Your task to perform on an android device: Add "logitech g pro" to the cart on walmart.com, then select checkout. Image 0: 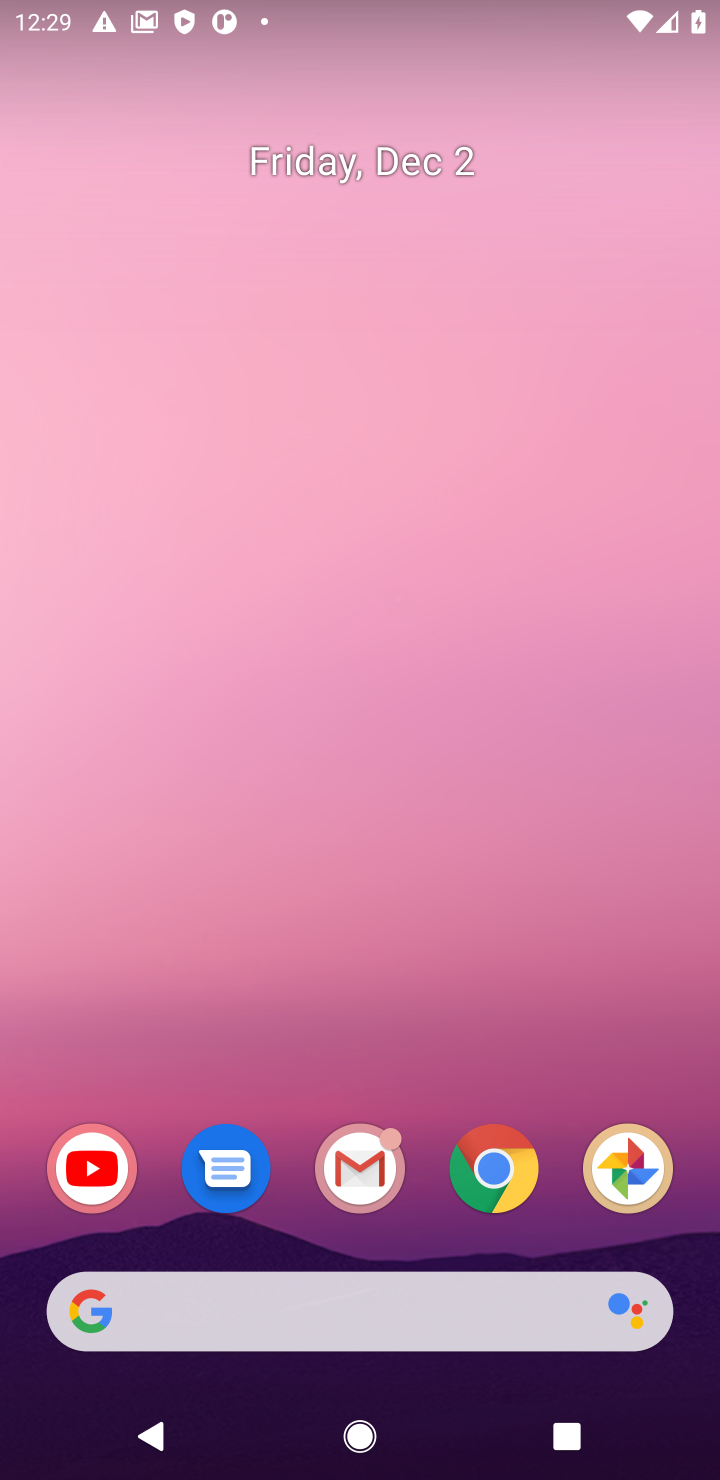
Step 0: click (506, 1173)
Your task to perform on an android device: Add "logitech g pro" to the cart on walmart.com, then select checkout. Image 1: 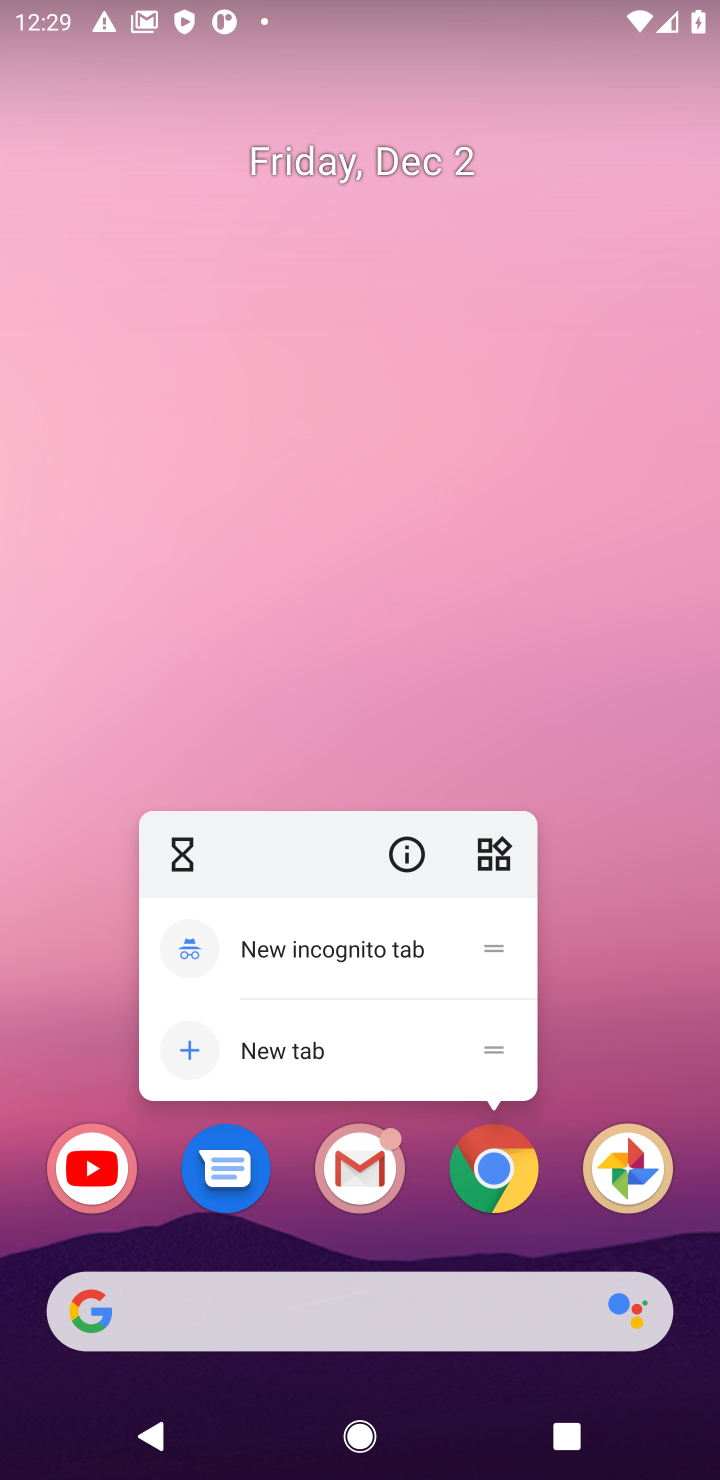
Step 1: click (506, 1173)
Your task to perform on an android device: Add "logitech g pro" to the cart on walmart.com, then select checkout. Image 2: 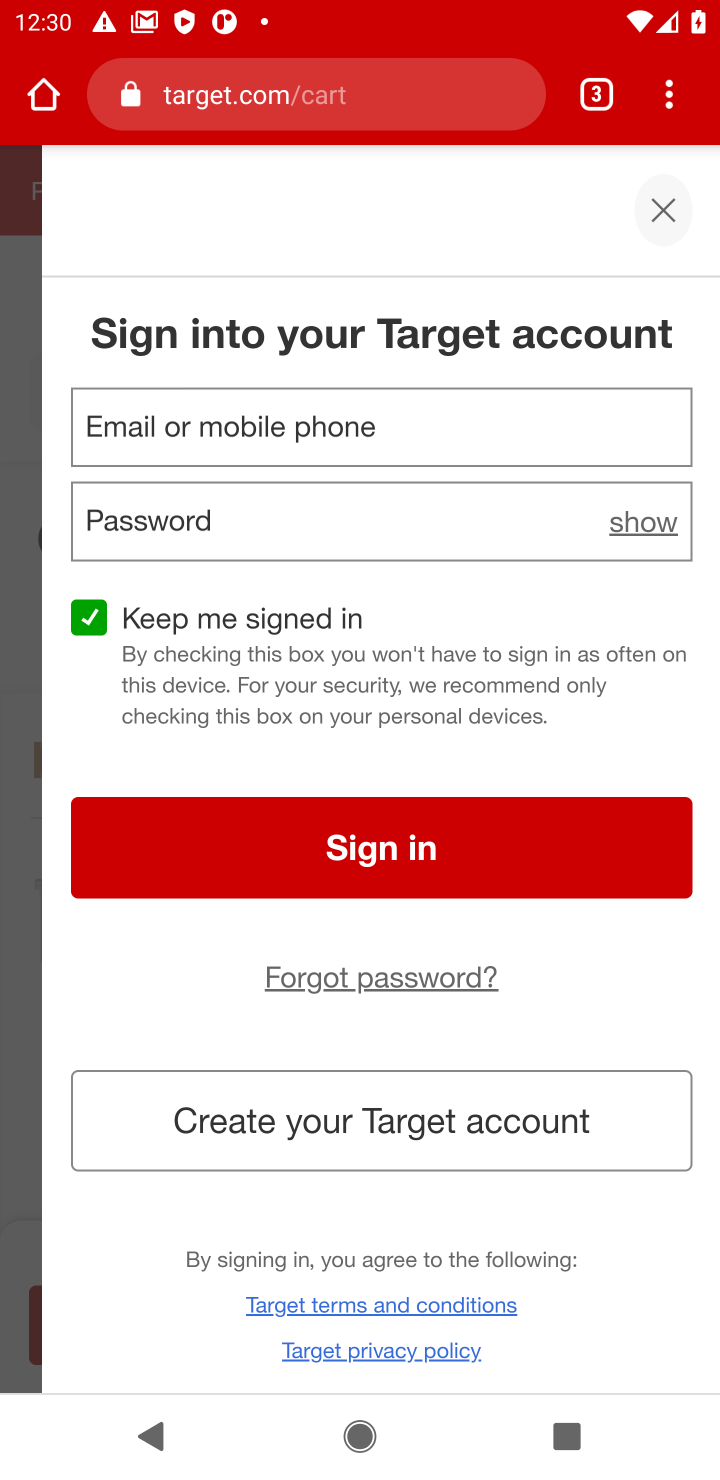
Step 2: click (296, 101)
Your task to perform on an android device: Add "logitech g pro" to the cart on walmart.com, then select checkout. Image 3: 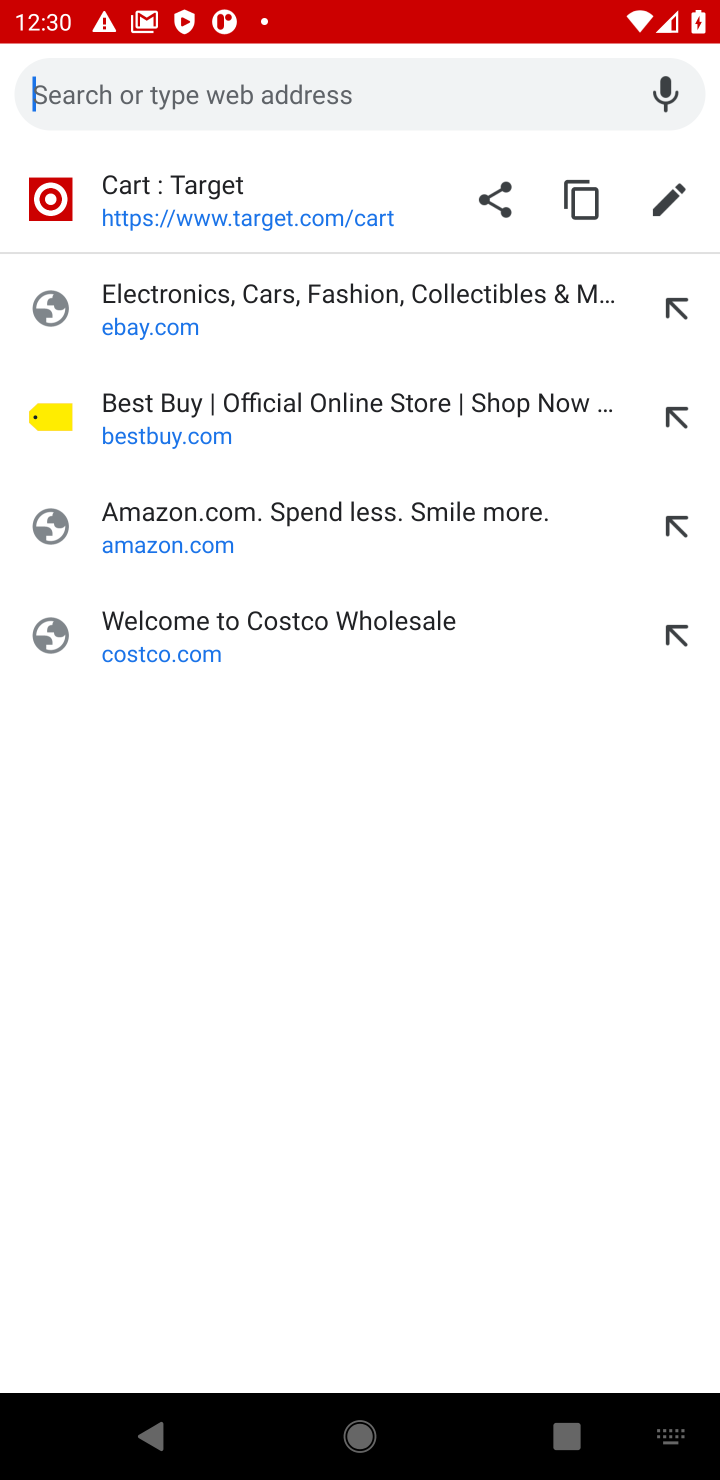
Step 3: type "walmart.com"
Your task to perform on an android device: Add "logitech g pro" to the cart on walmart.com, then select checkout. Image 4: 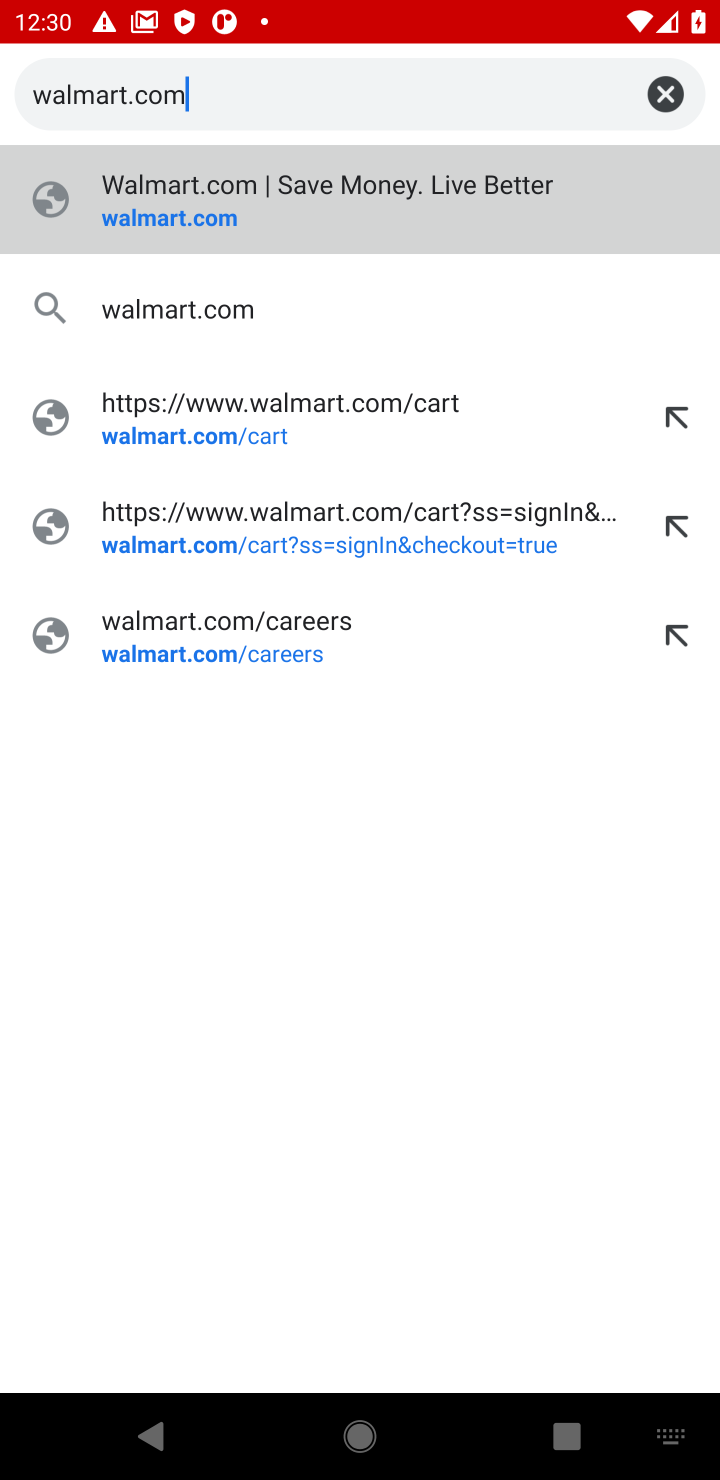
Step 4: click (132, 208)
Your task to perform on an android device: Add "logitech g pro" to the cart on walmart.com, then select checkout. Image 5: 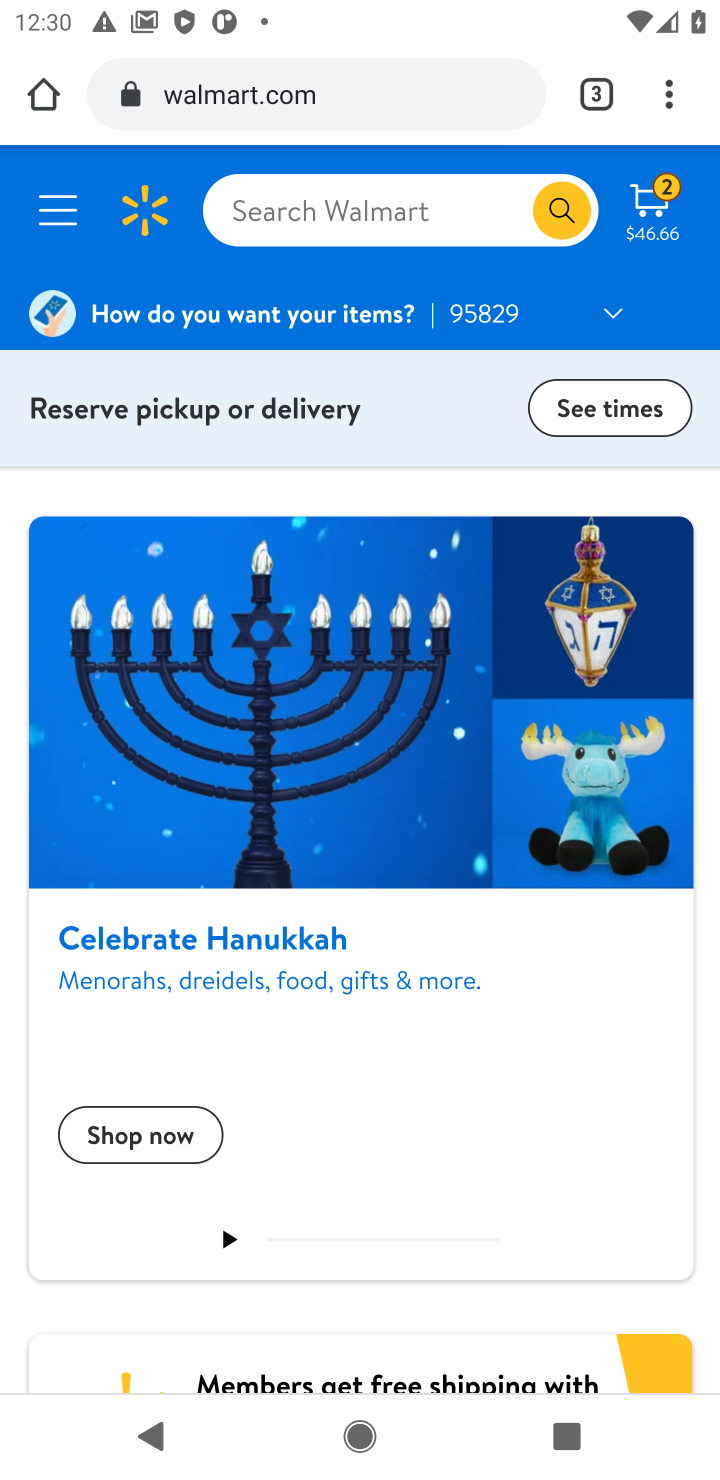
Step 5: click (284, 198)
Your task to perform on an android device: Add "logitech g pro" to the cart on walmart.com, then select checkout. Image 6: 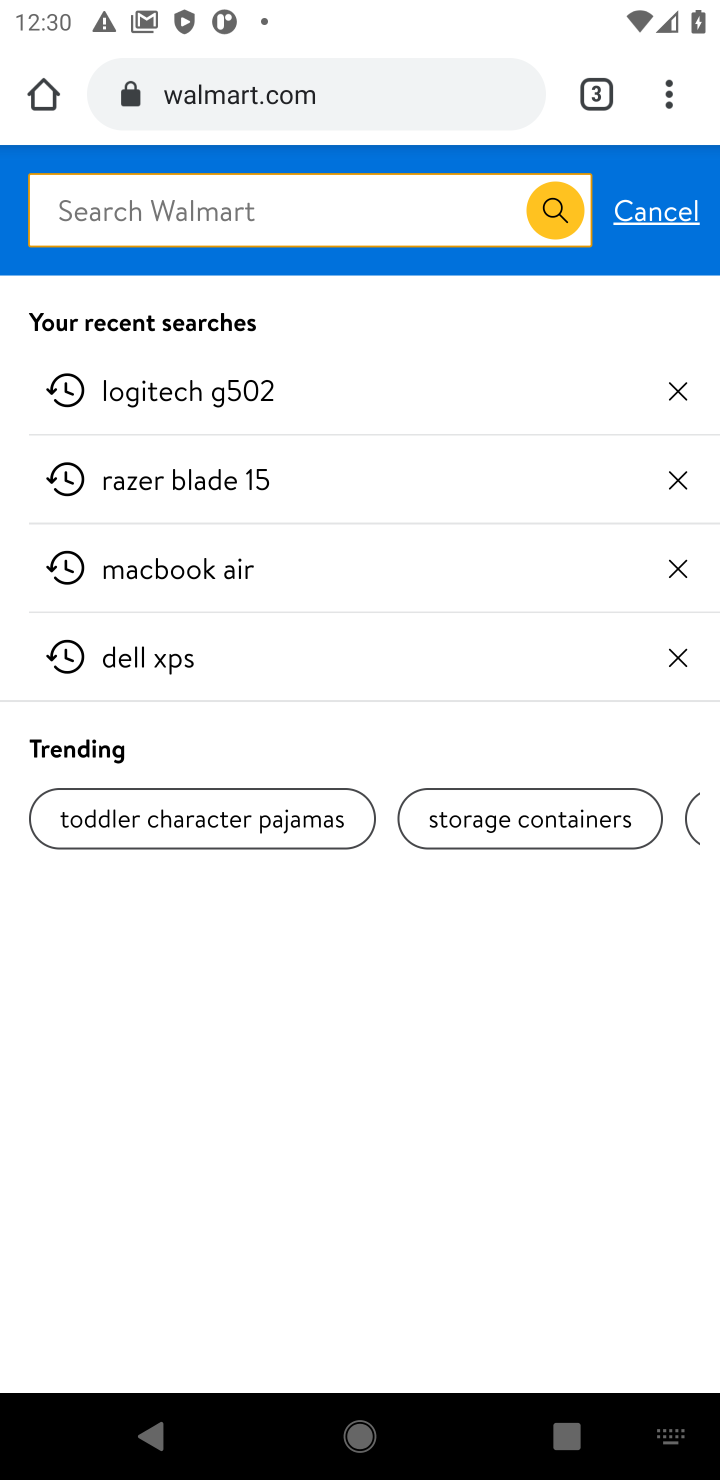
Step 6: type "logitech g pro"
Your task to perform on an android device: Add "logitech g pro" to the cart on walmart.com, then select checkout. Image 7: 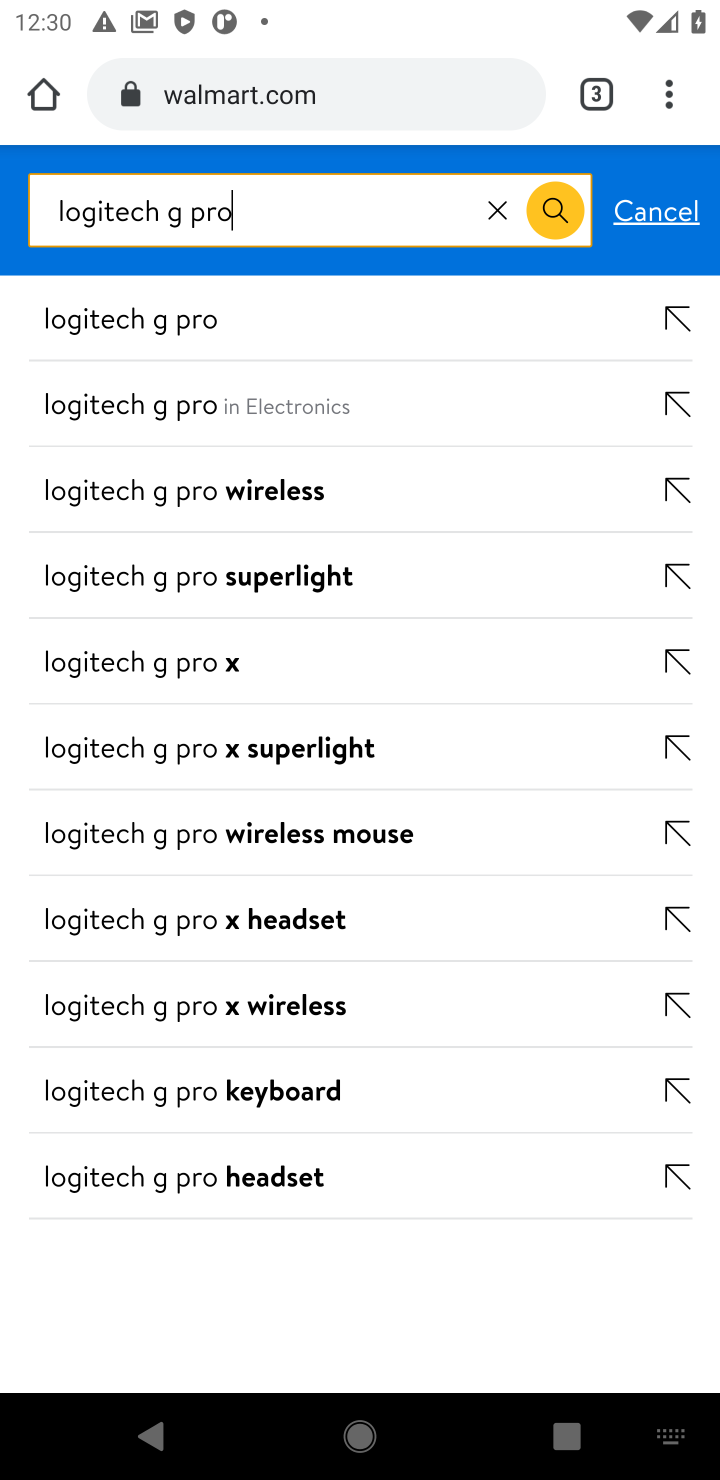
Step 7: click (164, 337)
Your task to perform on an android device: Add "logitech g pro" to the cart on walmart.com, then select checkout. Image 8: 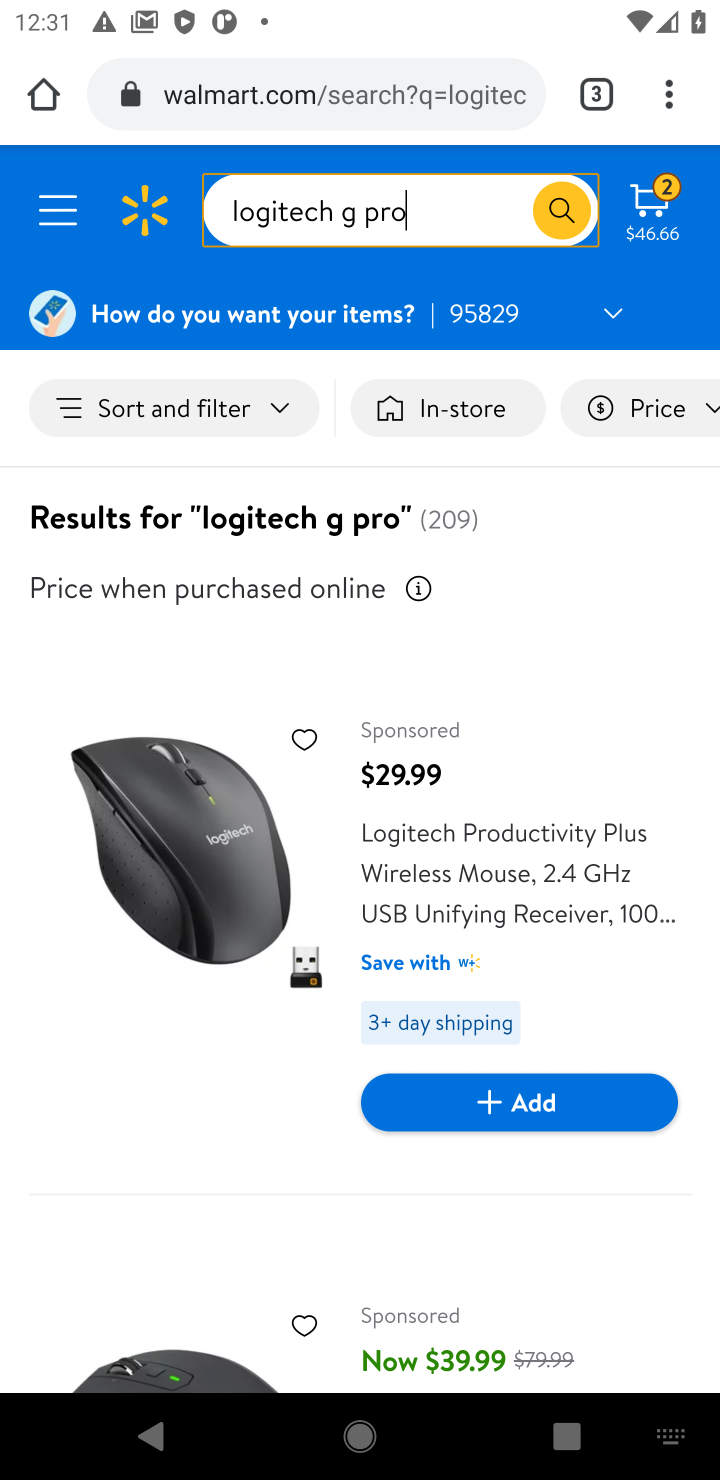
Step 8: drag from (196, 999) to (212, 515)
Your task to perform on an android device: Add "logitech g pro" to the cart on walmart.com, then select checkout. Image 9: 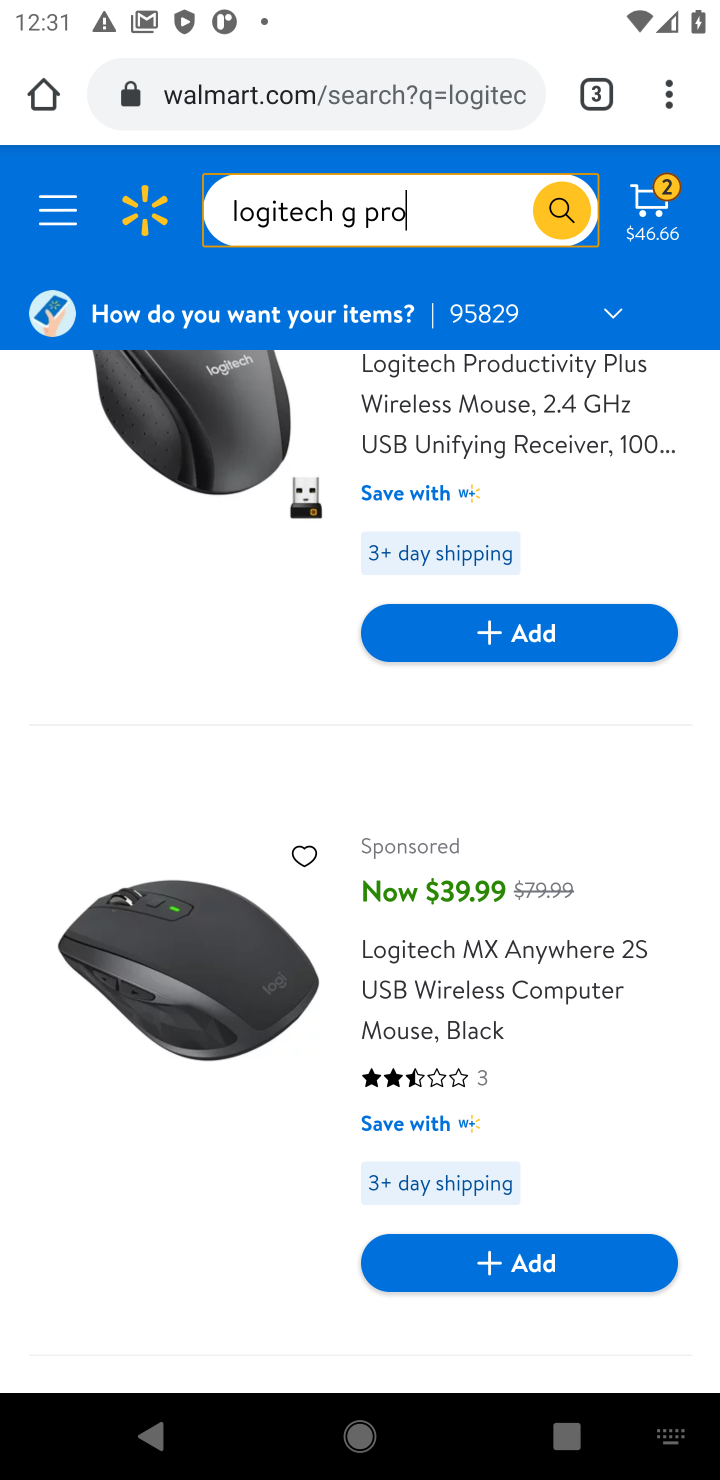
Step 9: drag from (198, 1075) to (220, 549)
Your task to perform on an android device: Add "logitech g pro" to the cart on walmart.com, then select checkout. Image 10: 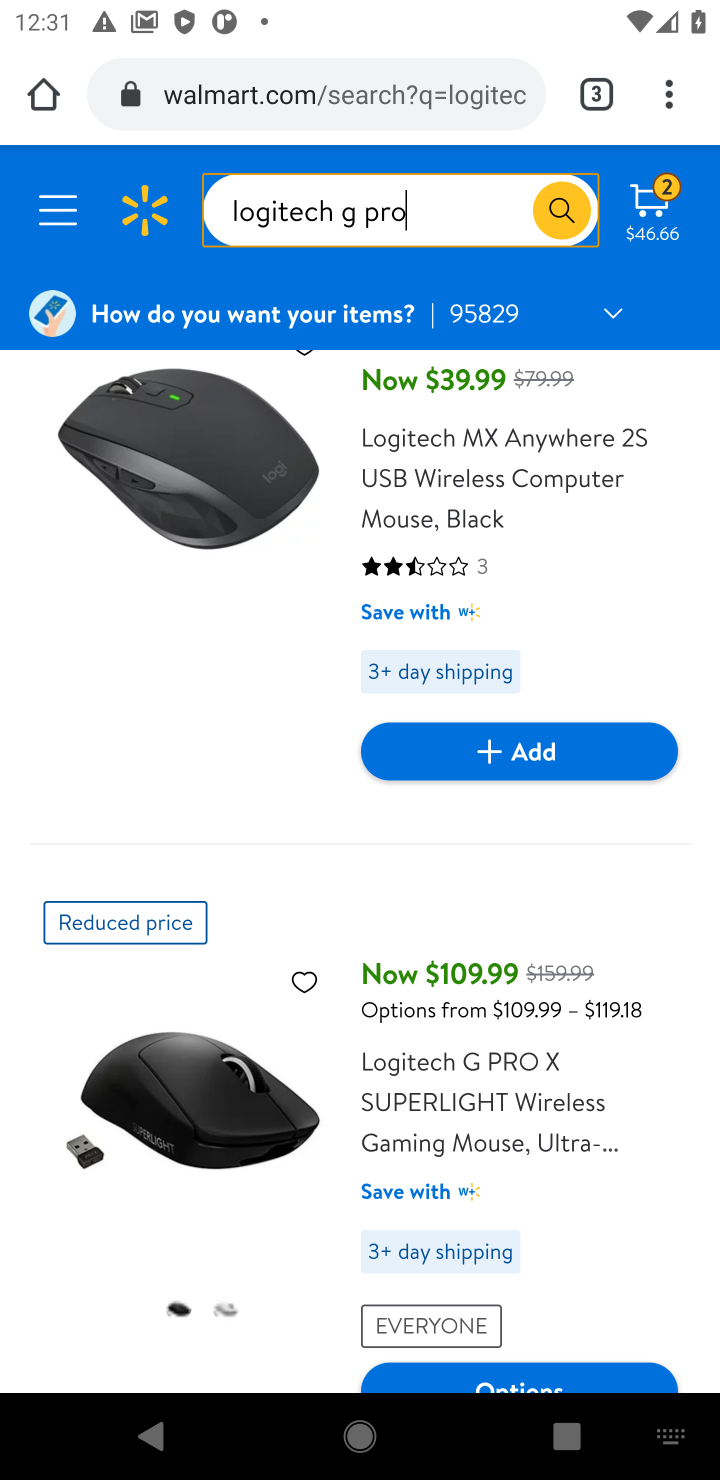
Step 10: drag from (235, 969) to (226, 617)
Your task to perform on an android device: Add "logitech g pro" to the cart on walmart.com, then select checkout. Image 11: 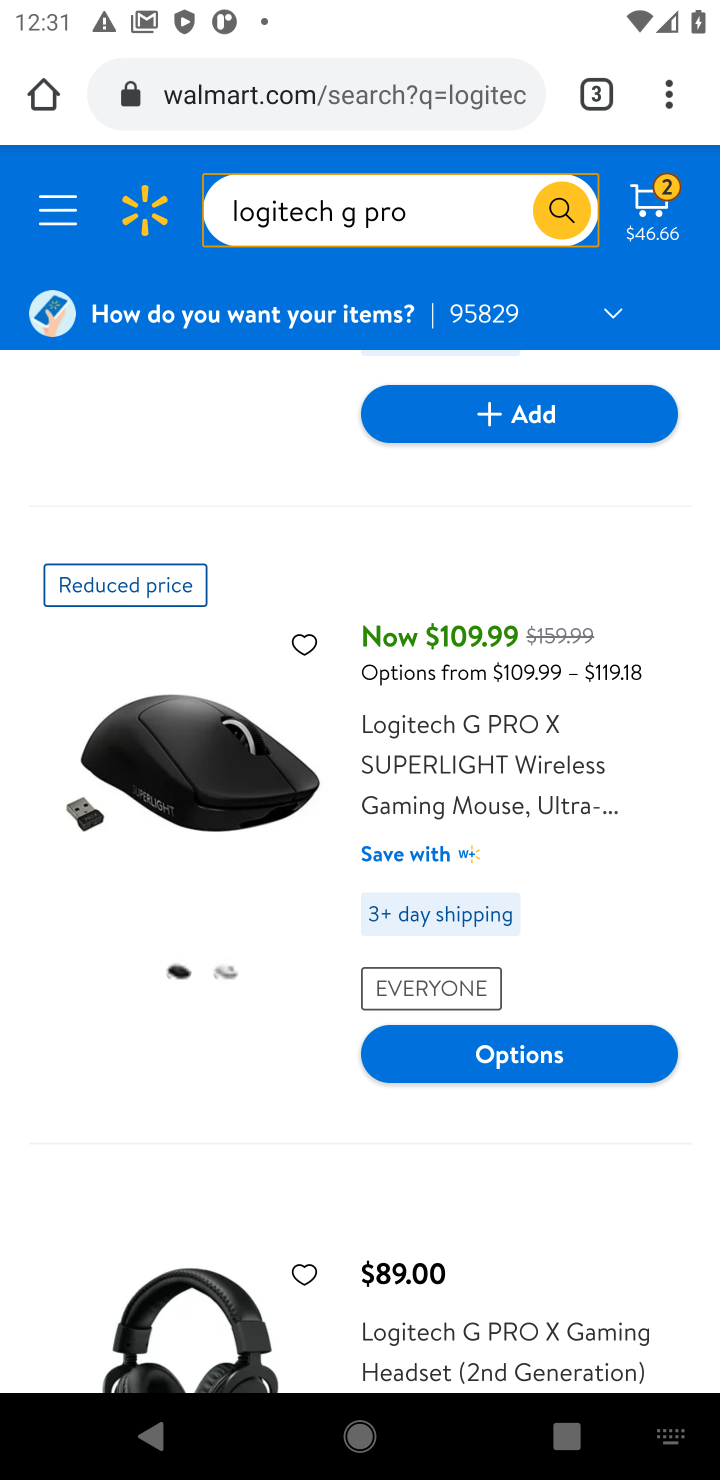
Step 11: click (460, 760)
Your task to perform on an android device: Add "logitech g pro" to the cart on walmart.com, then select checkout. Image 12: 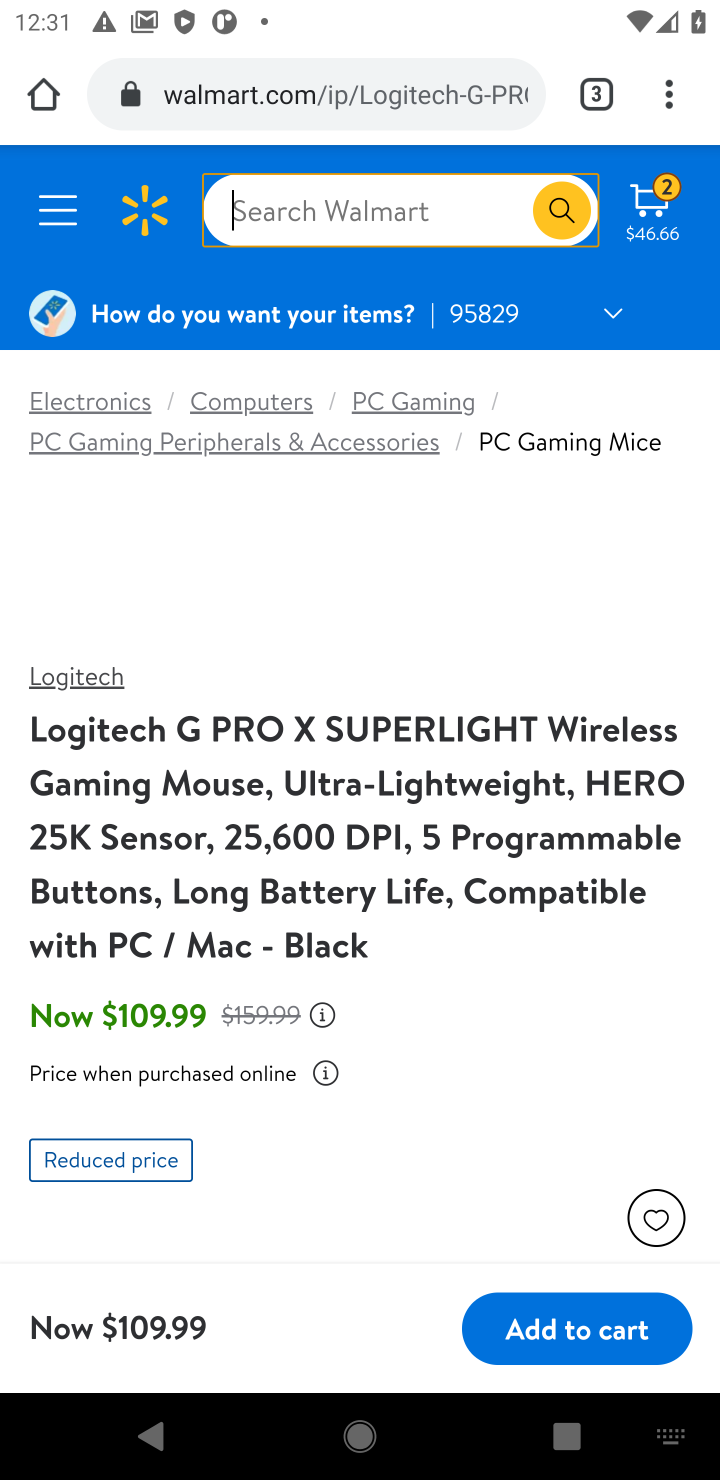
Step 12: click (599, 1321)
Your task to perform on an android device: Add "logitech g pro" to the cart on walmart.com, then select checkout. Image 13: 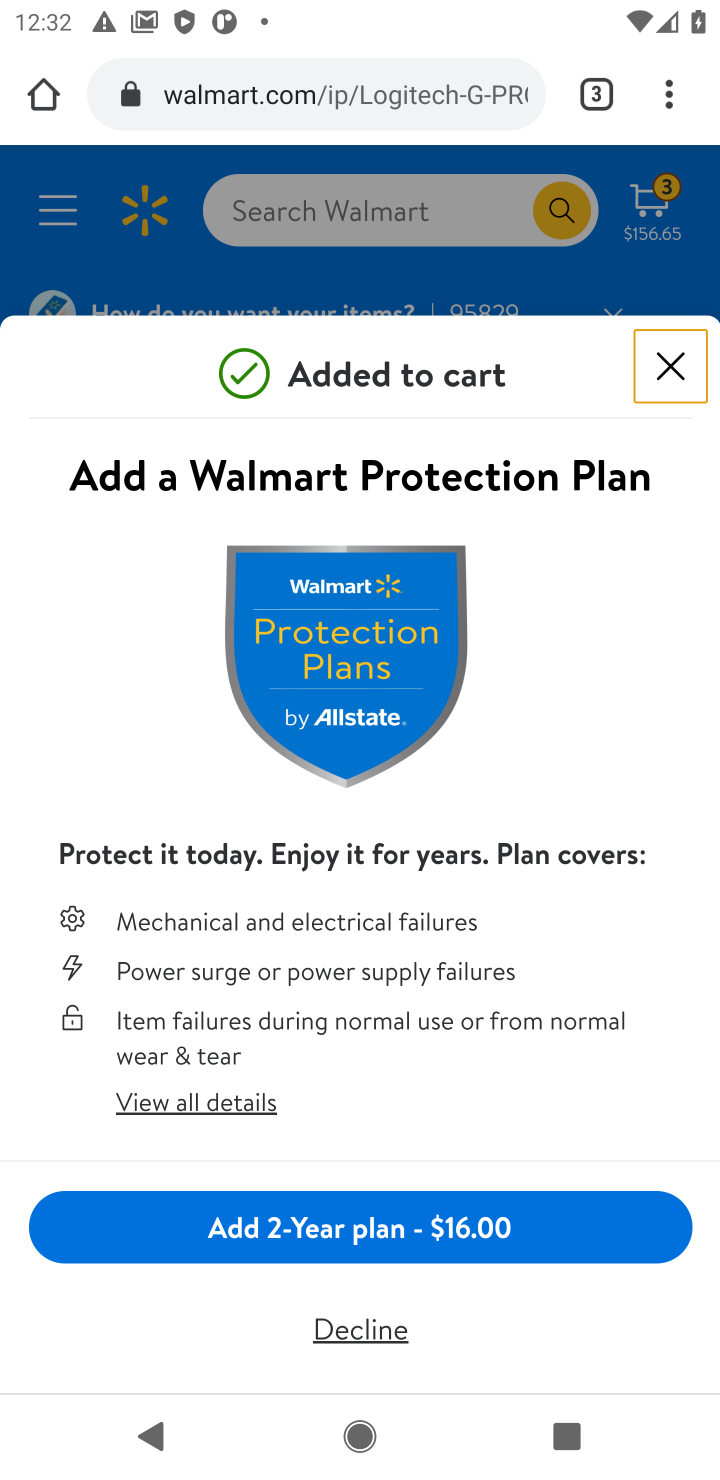
Step 13: click (662, 370)
Your task to perform on an android device: Add "logitech g pro" to the cart on walmart.com, then select checkout. Image 14: 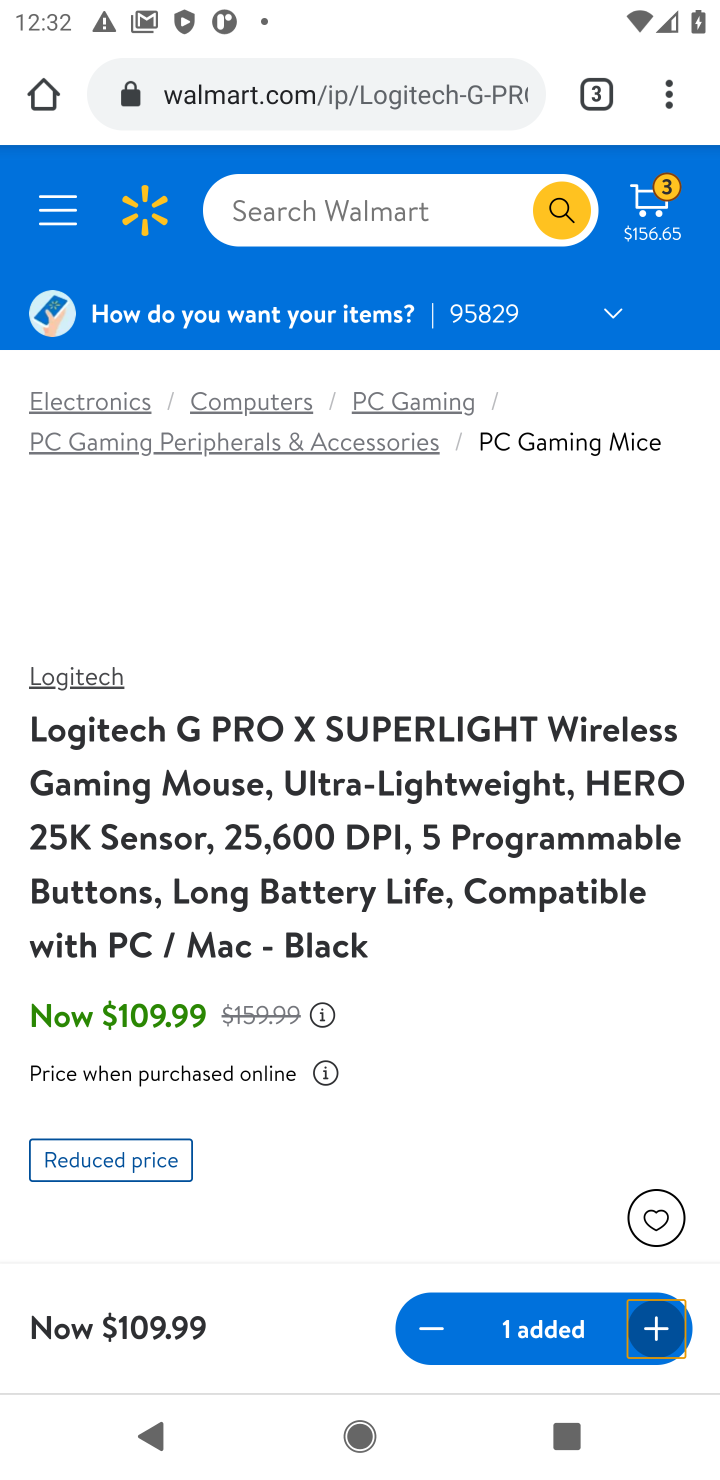
Step 14: click (654, 224)
Your task to perform on an android device: Add "logitech g pro" to the cart on walmart.com, then select checkout. Image 15: 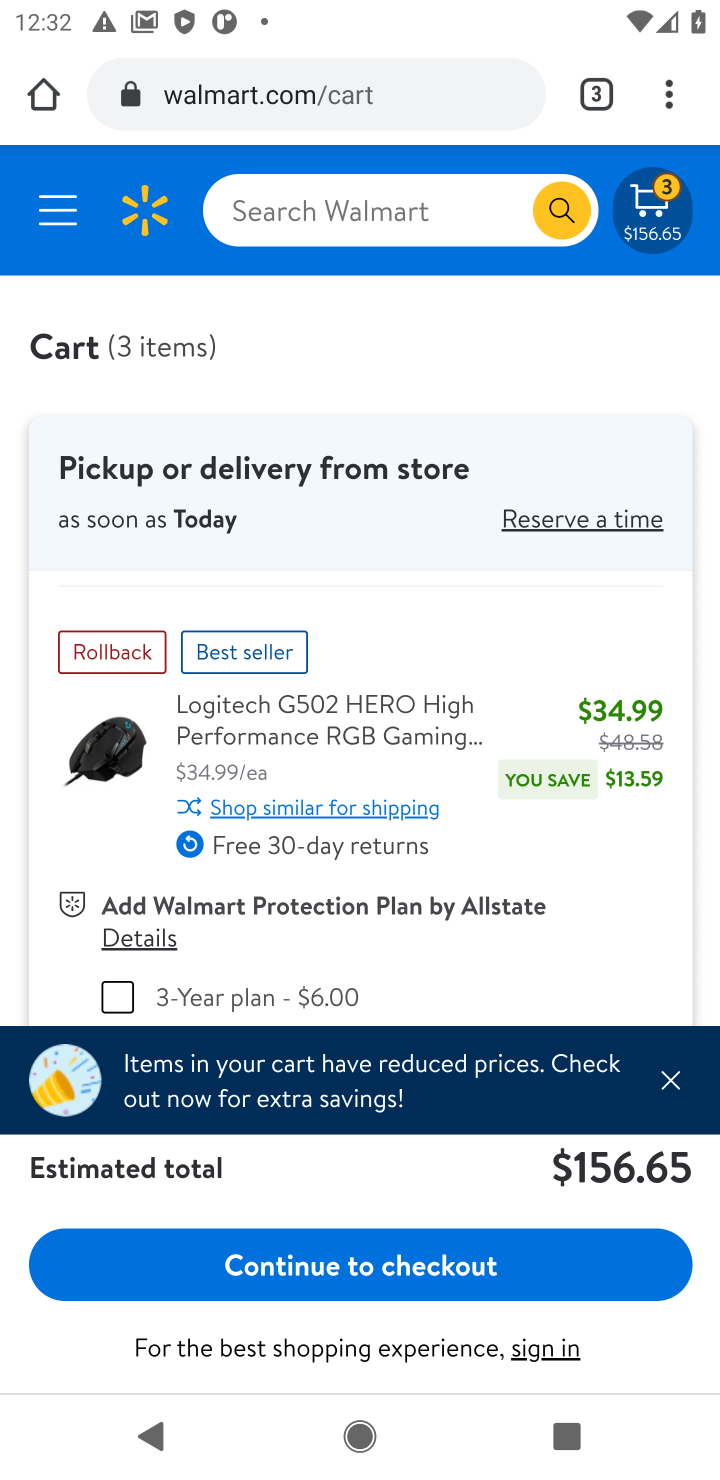
Step 15: click (359, 1264)
Your task to perform on an android device: Add "logitech g pro" to the cart on walmart.com, then select checkout. Image 16: 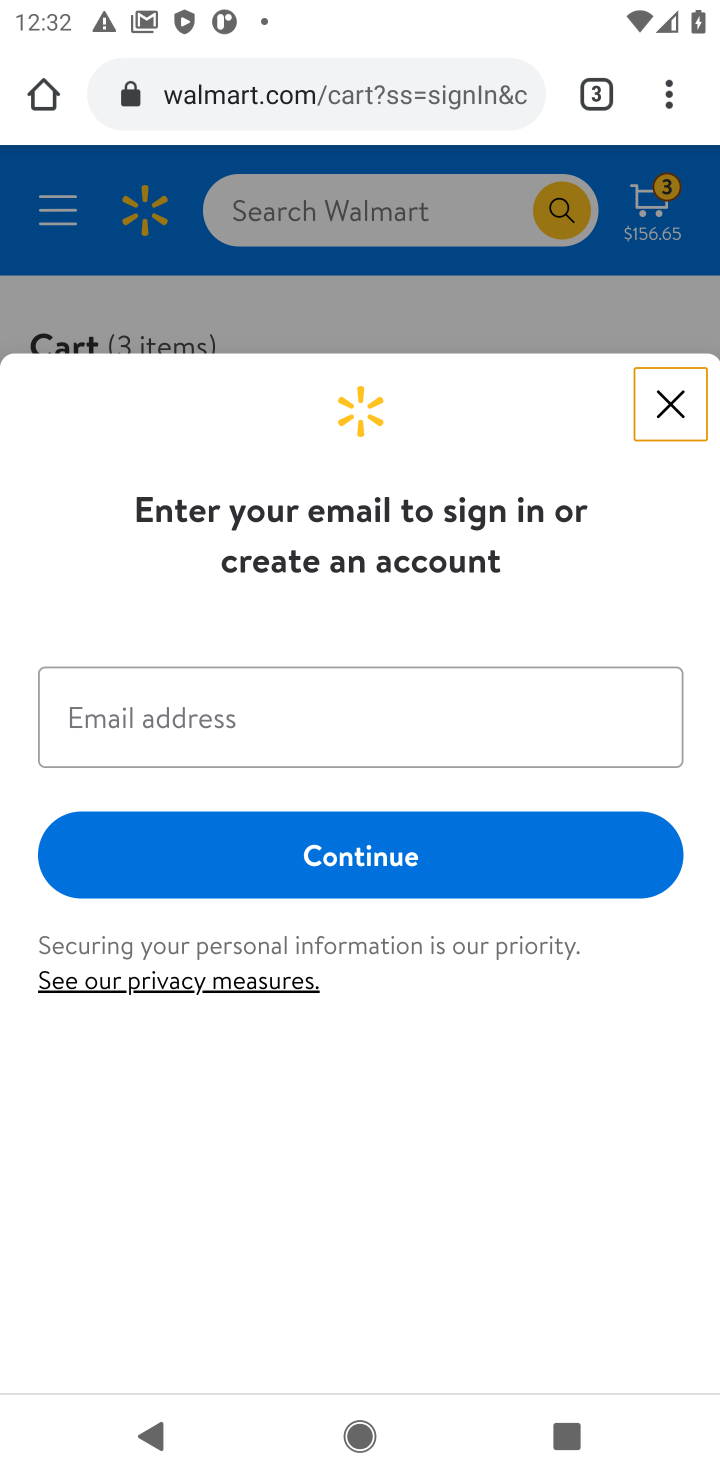
Step 16: task complete